Your task to perform on an android device: What's the news in Barbados? Image 0: 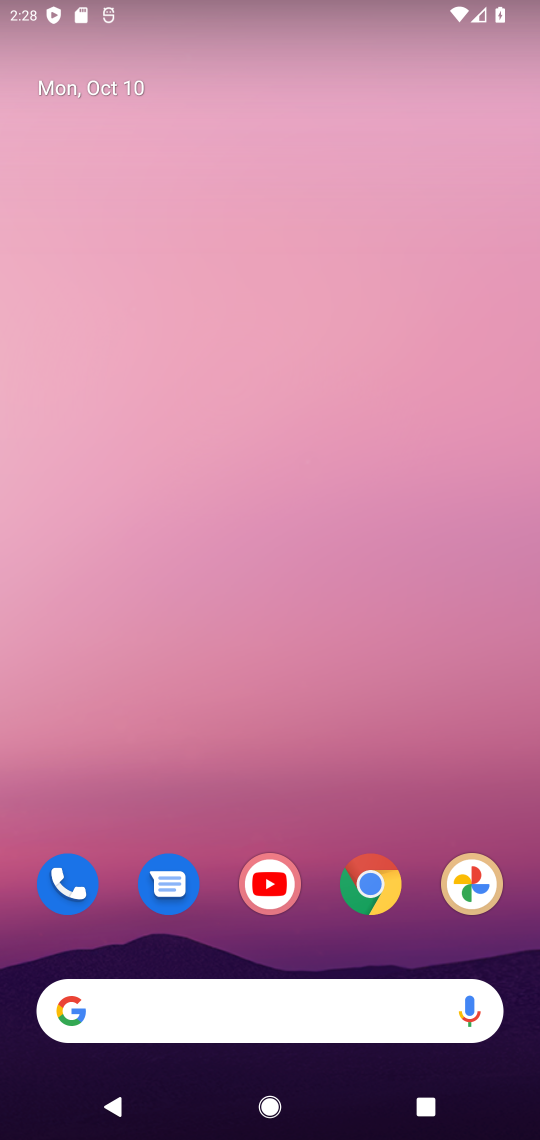
Step 0: click (331, 1014)
Your task to perform on an android device: What's the news in Barbados? Image 1: 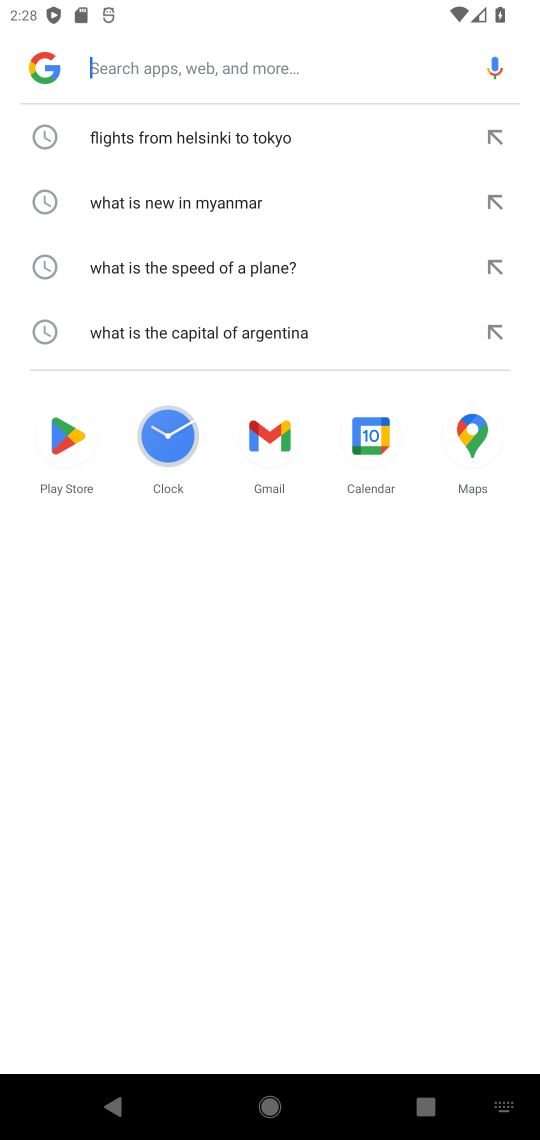
Step 1: type "What's the news in Barbados?"
Your task to perform on an android device: What's the news in Barbados? Image 2: 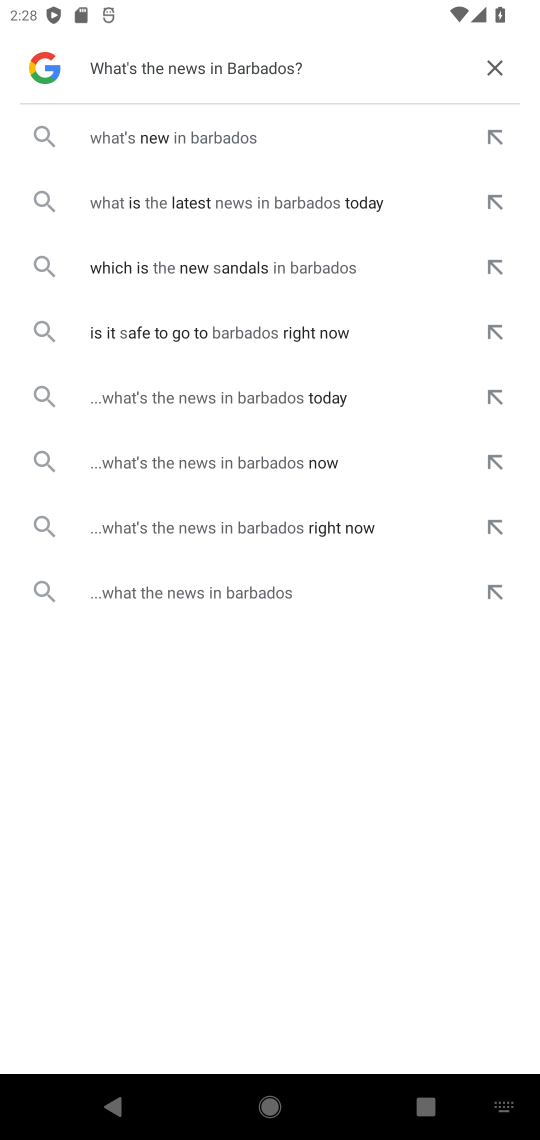
Step 2: click (198, 584)
Your task to perform on an android device: What's the news in Barbados? Image 3: 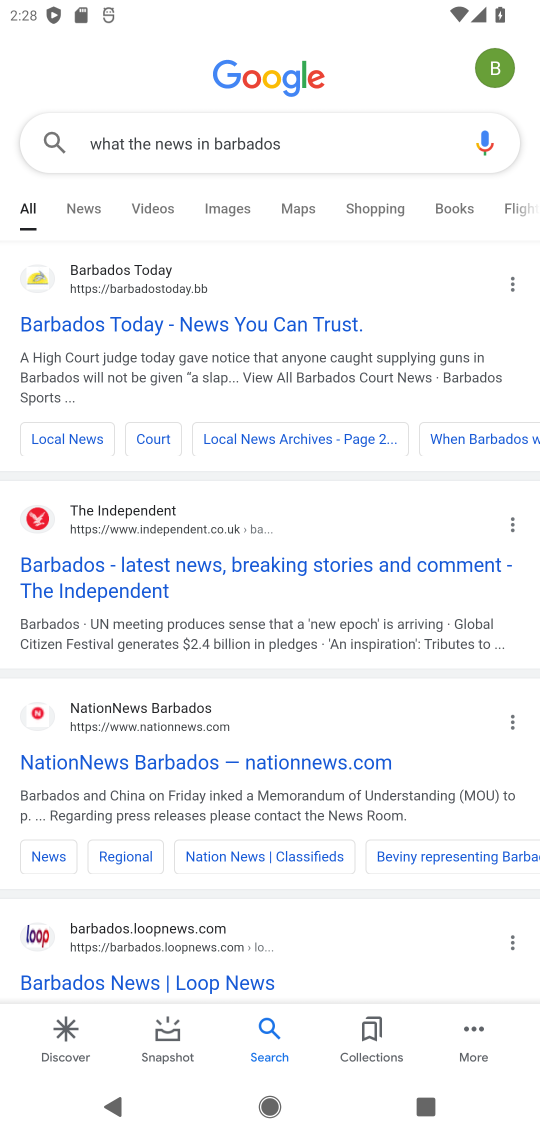
Step 3: click (168, 319)
Your task to perform on an android device: What's the news in Barbados? Image 4: 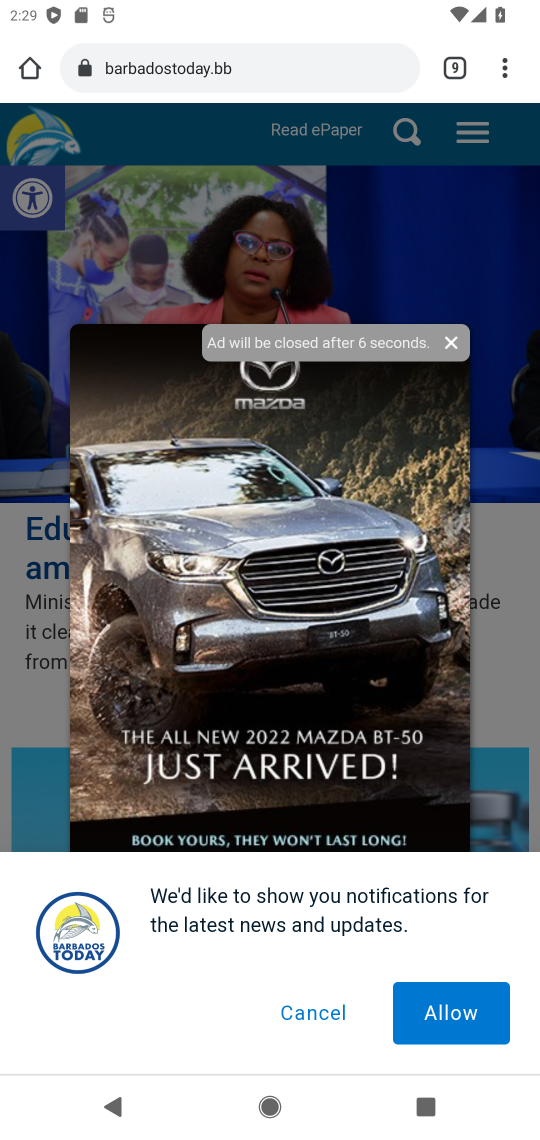
Step 4: click (453, 342)
Your task to perform on an android device: What's the news in Barbados? Image 5: 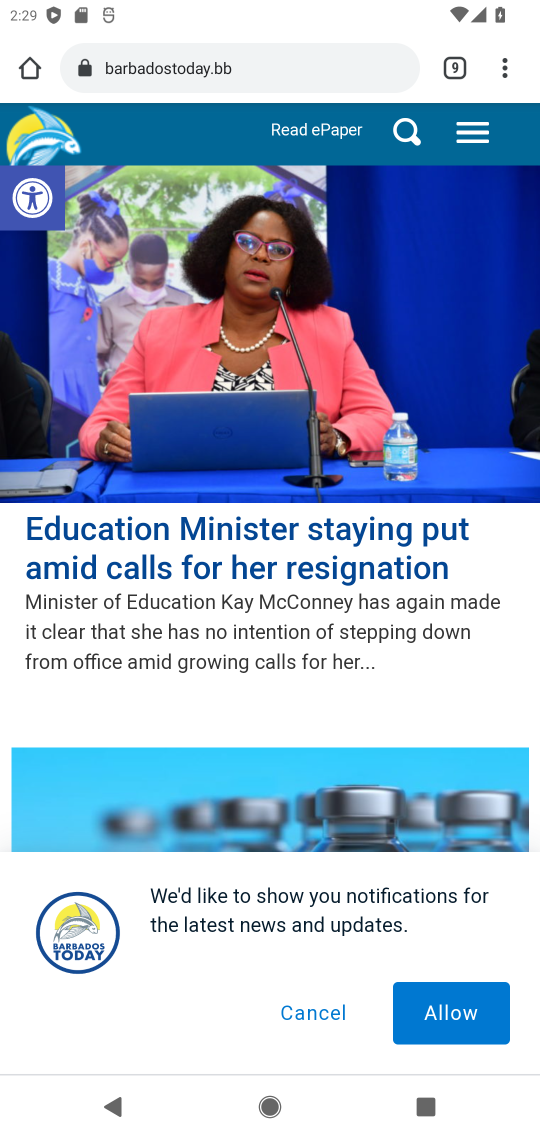
Step 5: click (315, 1007)
Your task to perform on an android device: What's the news in Barbados? Image 6: 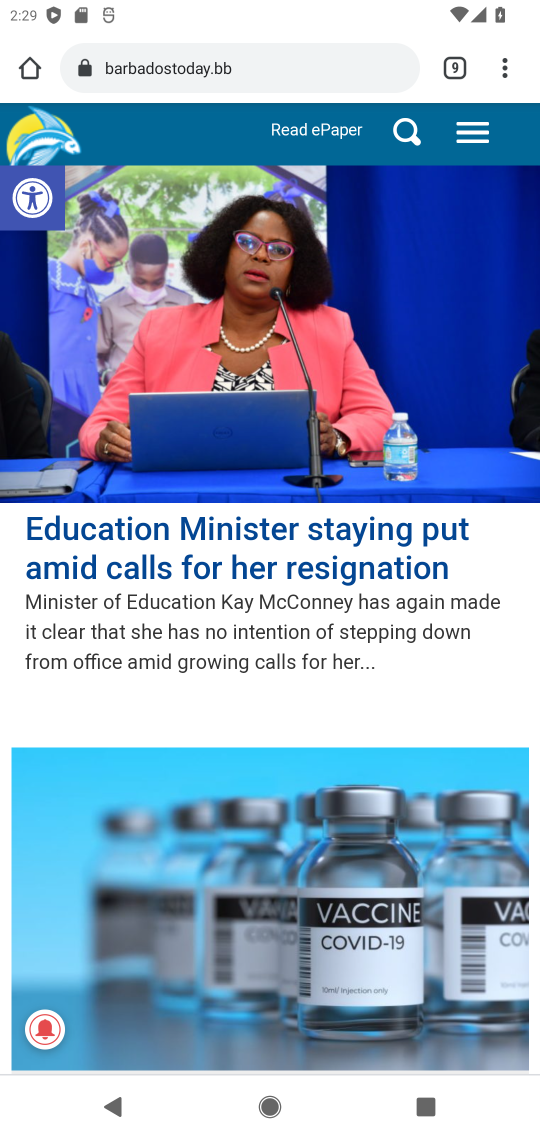
Step 6: task complete